Your task to perform on an android device: turn on location history Image 0: 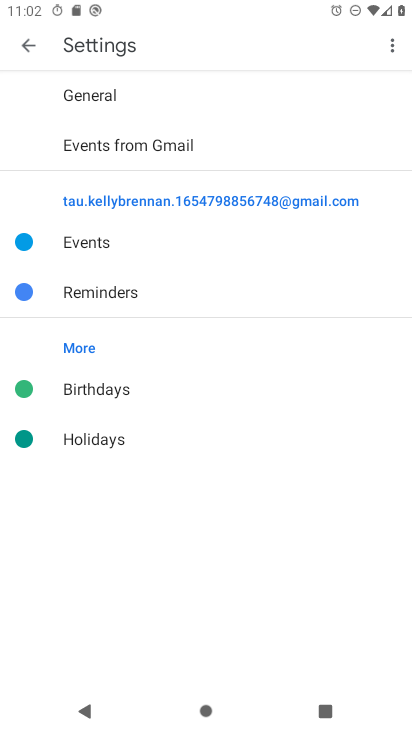
Step 0: press back button
Your task to perform on an android device: turn on location history Image 1: 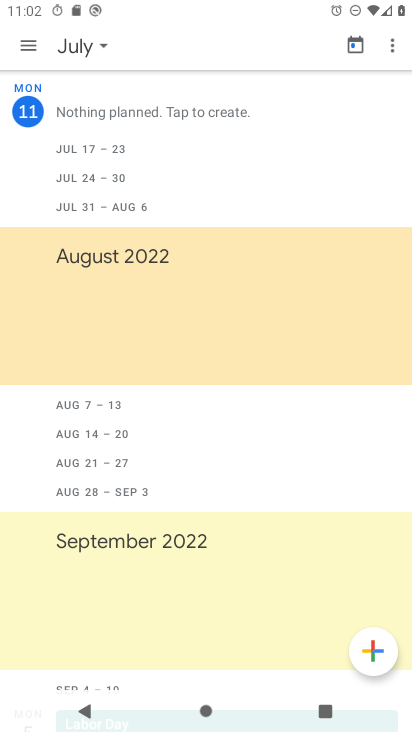
Step 1: press back button
Your task to perform on an android device: turn on location history Image 2: 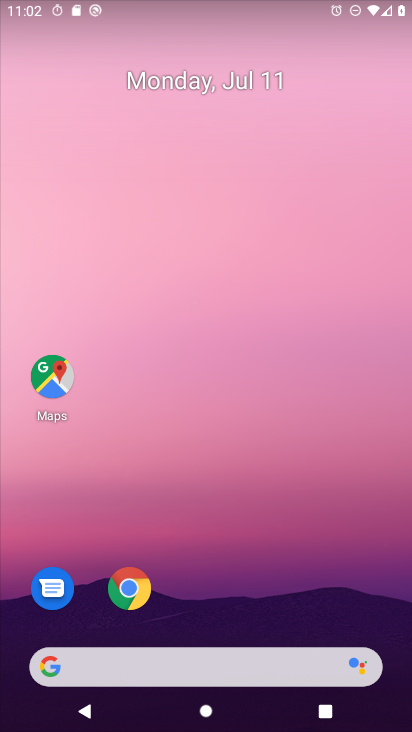
Step 2: drag from (178, 594) to (310, 39)
Your task to perform on an android device: turn on location history Image 3: 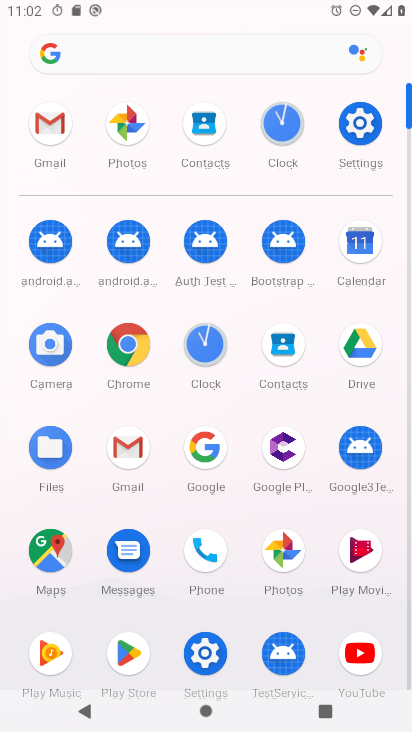
Step 3: click (346, 132)
Your task to perform on an android device: turn on location history Image 4: 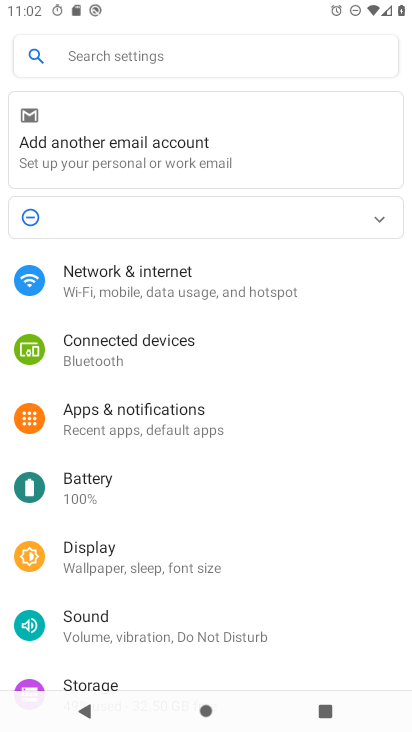
Step 4: drag from (130, 645) to (226, 165)
Your task to perform on an android device: turn on location history Image 5: 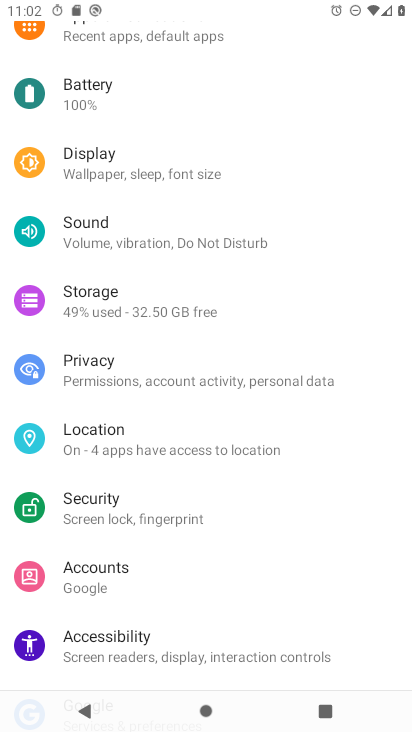
Step 5: click (89, 439)
Your task to perform on an android device: turn on location history Image 6: 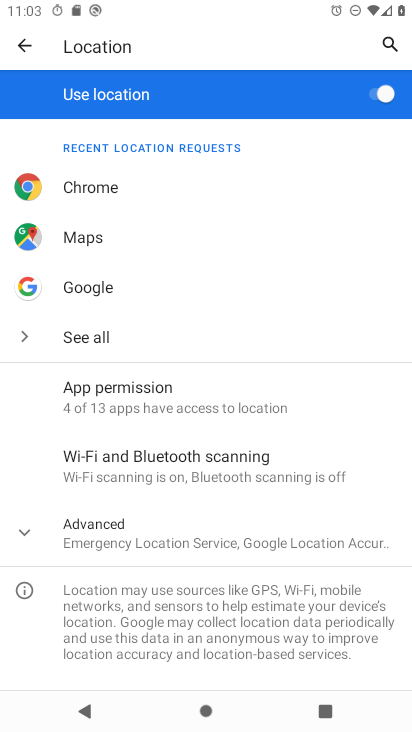
Step 6: click (114, 531)
Your task to perform on an android device: turn on location history Image 7: 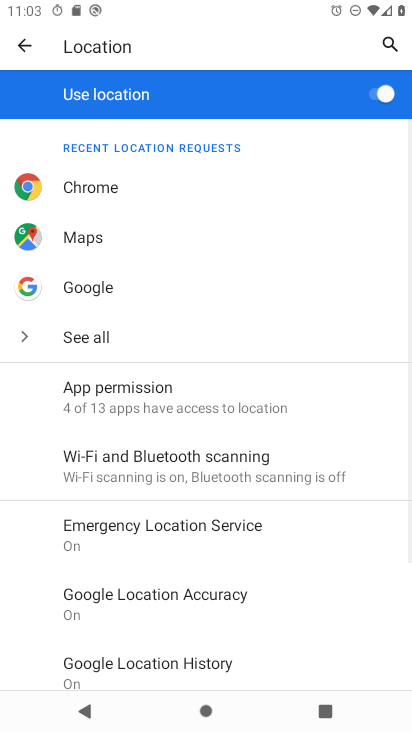
Step 7: click (168, 656)
Your task to perform on an android device: turn on location history Image 8: 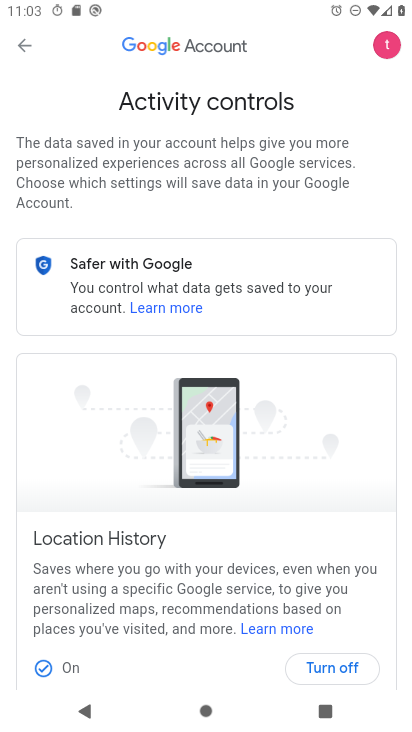
Step 8: task complete